Your task to perform on an android device: open app "Instagram" Image 0: 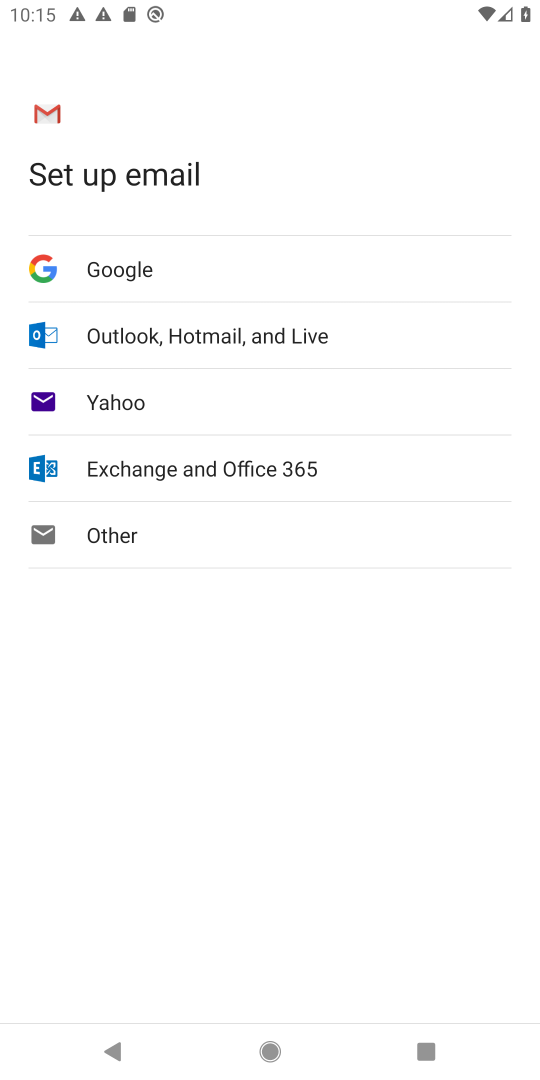
Step 0: press home button
Your task to perform on an android device: open app "Instagram" Image 1: 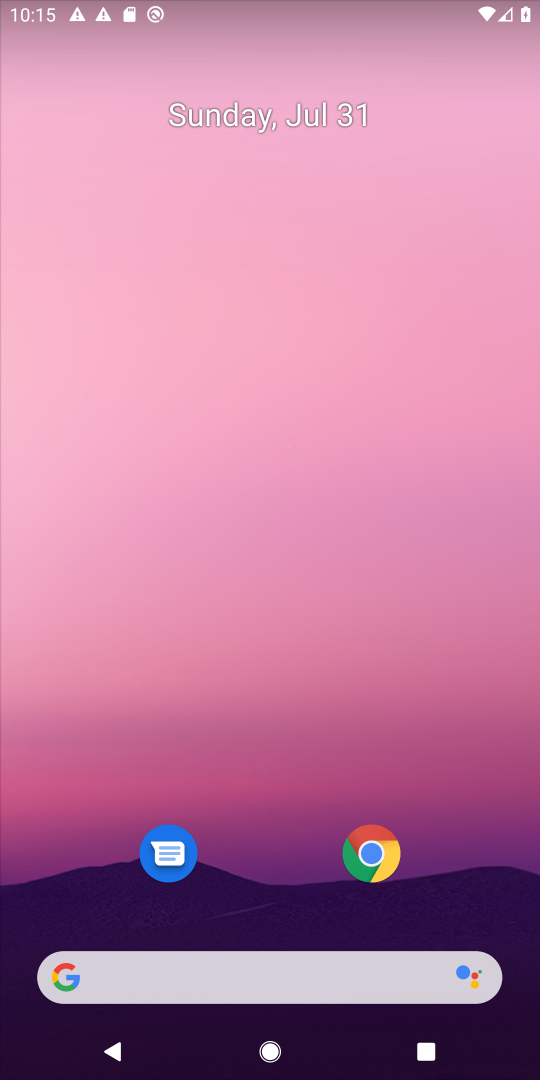
Step 1: task complete